Your task to perform on an android device: turn vacation reply on in the gmail app Image 0: 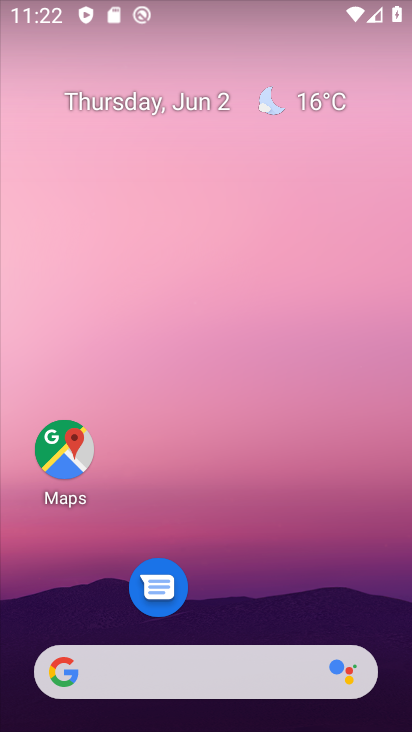
Step 0: drag from (229, 624) to (7, 671)
Your task to perform on an android device: turn vacation reply on in the gmail app Image 1: 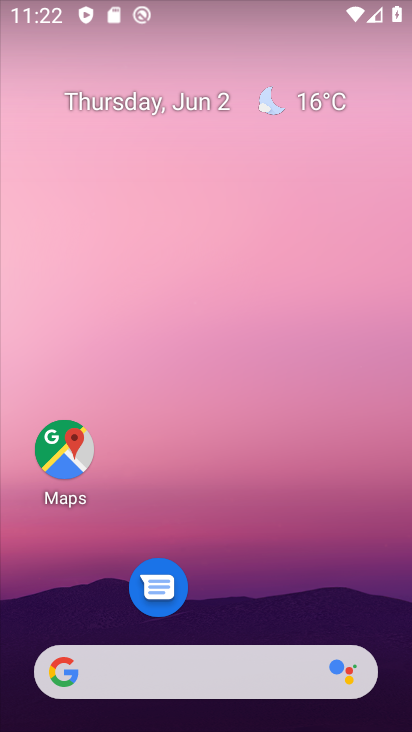
Step 1: drag from (203, 627) to (262, 25)
Your task to perform on an android device: turn vacation reply on in the gmail app Image 2: 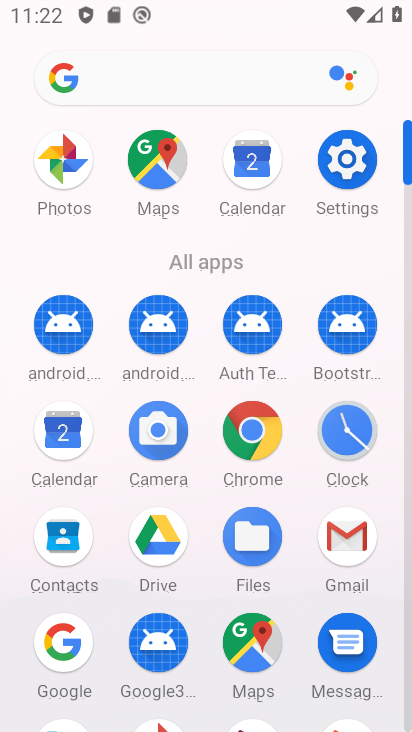
Step 2: click (351, 532)
Your task to perform on an android device: turn vacation reply on in the gmail app Image 3: 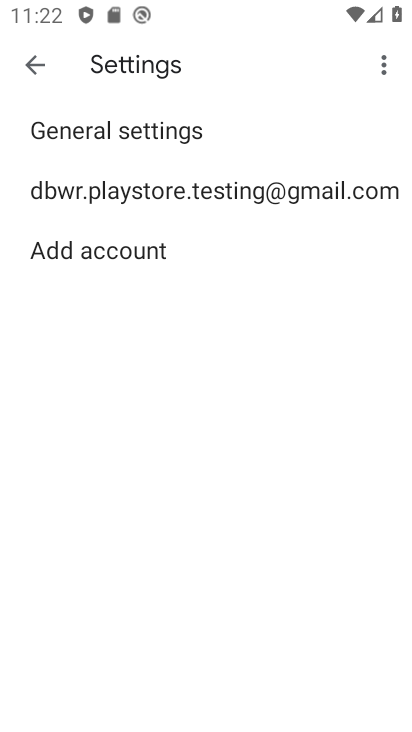
Step 3: click (153, 166)
Your task to perform on an android device: turn vacation reply on in the gmail app Image 4: 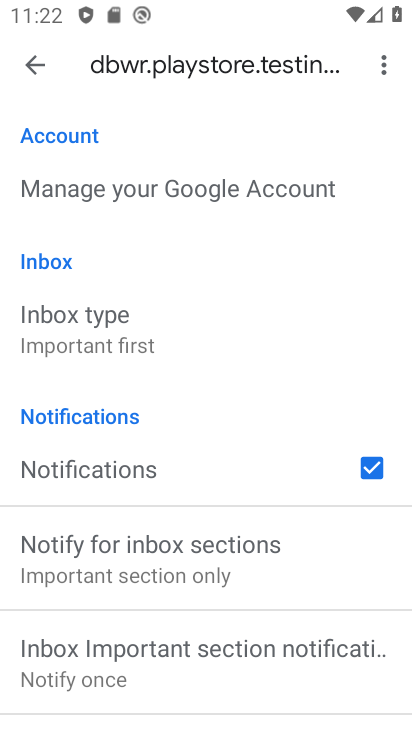
Step 4: drag from (181, 654) to (176, 210)
Your task to perform on an android device: turn vacation reply on in the gmail app Image 5: 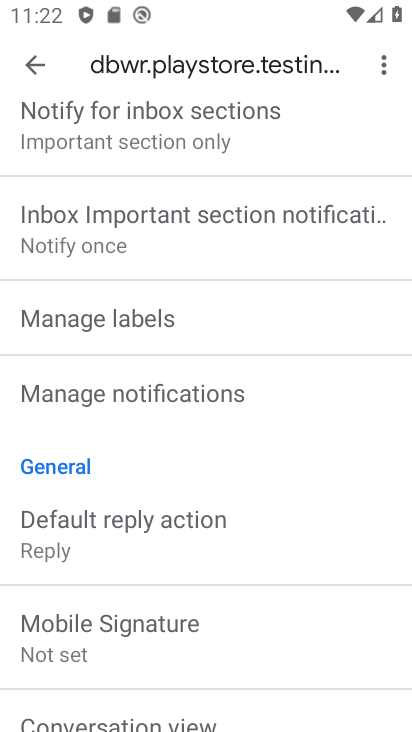
Step 5: drag from (150, 605) to (139, 75)
Your task to perform on an android device: turn vacation reply on in the gmail app Image 6: 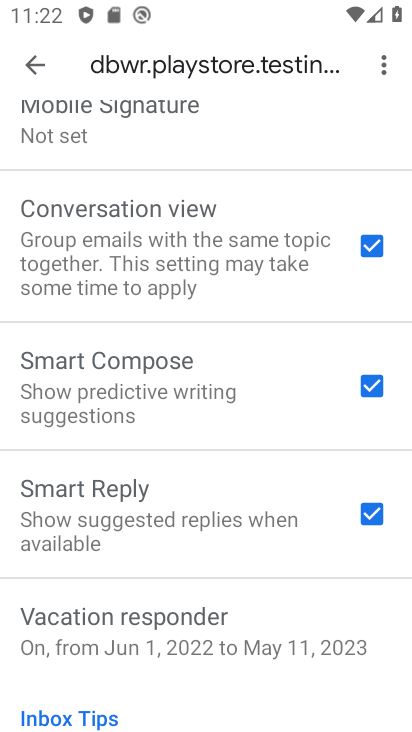
Step 6: click (173, 663)
Your task to perform on an android device: turn vacation reply on in the gmail app Image 7: 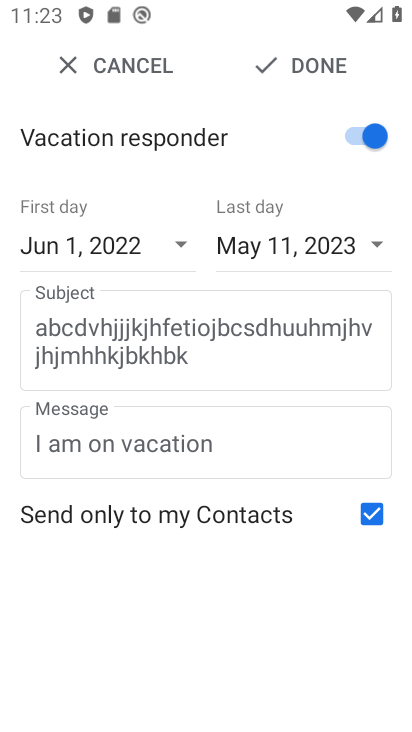
Step 7: click (284, 58)
Your task to perform on an android device: turn vacation reply on in the gmail app Image 8: 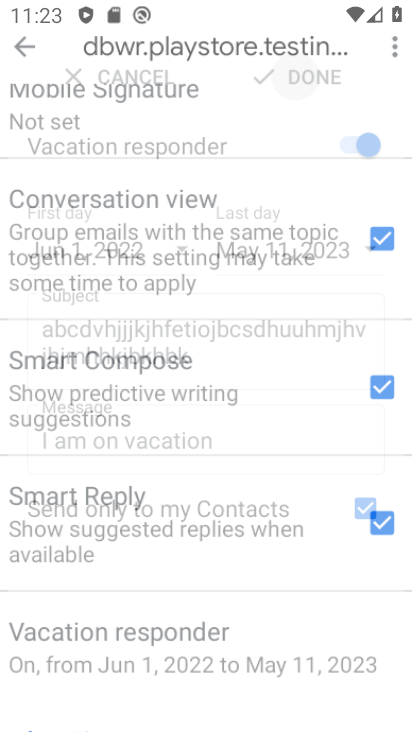
Step 8: task complete